Your task to perform on an android device: Open settings Image 0: 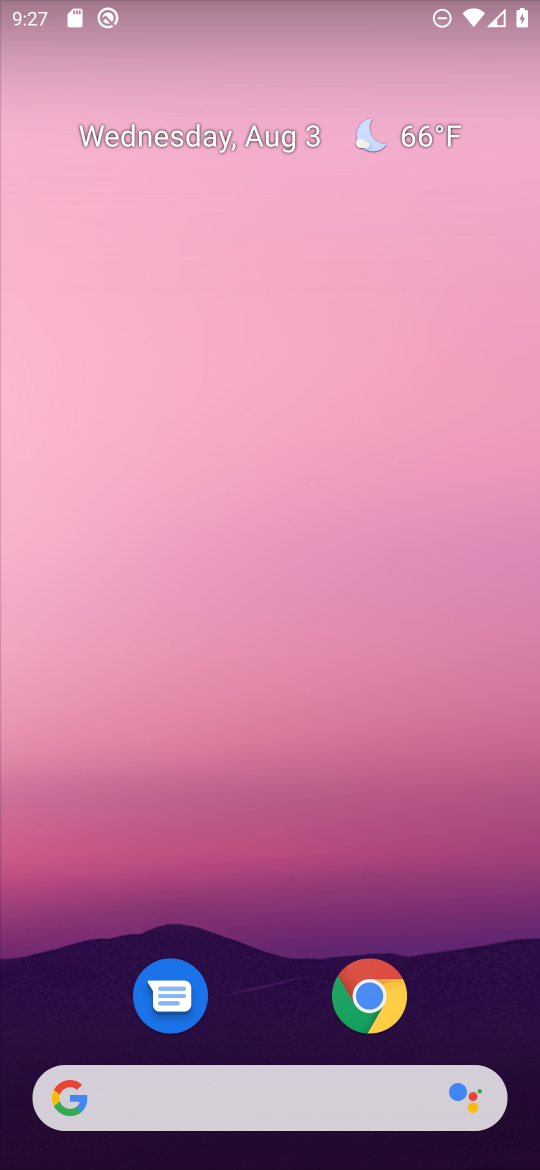
Step 0: drag from (283, 896) to (227, 46)
Your task to perform on an android device: Open settings Image 1: 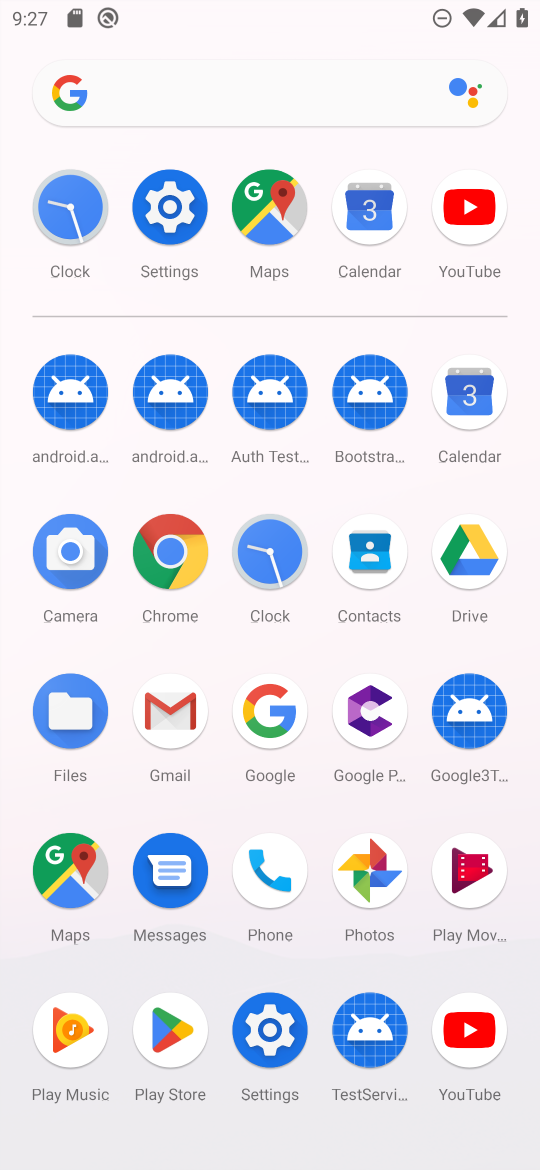
Step 1: click (167, 204)
Your task to perform on an android device: Open settings Image 2: 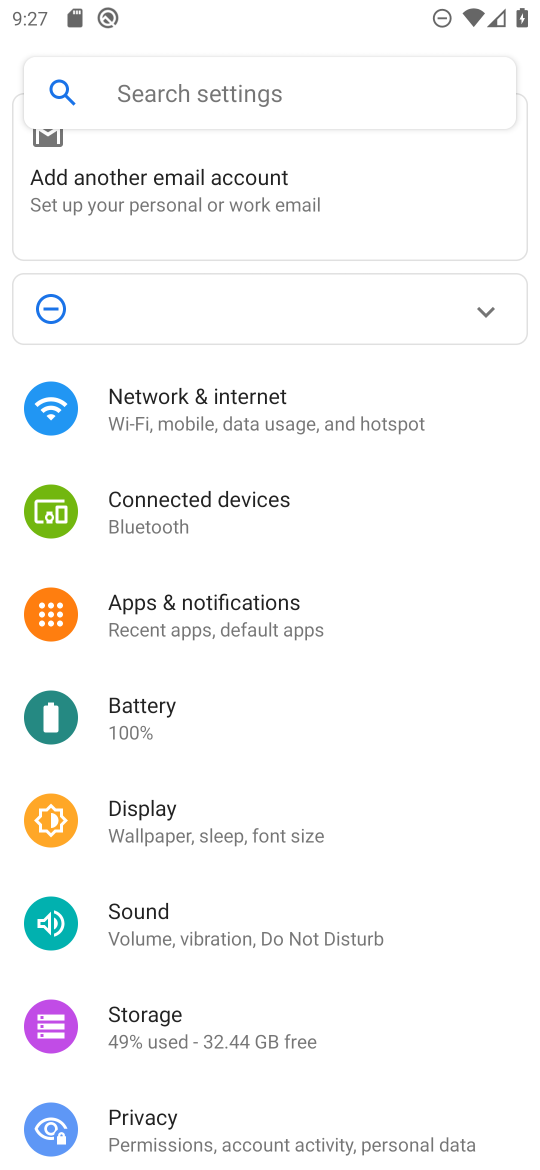
Step 2: task complete